Your task to perform on an android device: turn on the 24-hour format for clock Image 0: 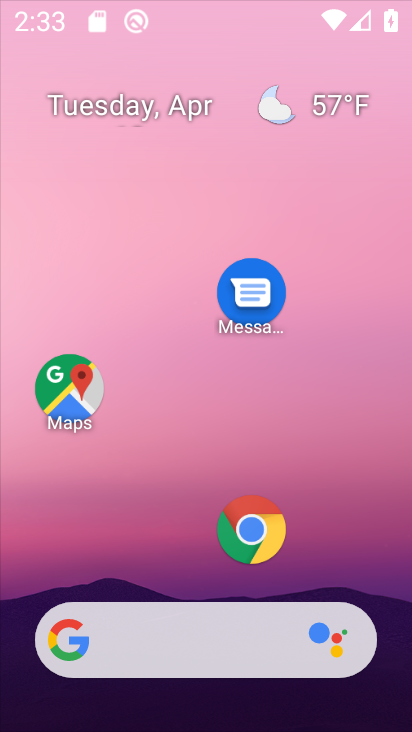
Step 0: drag from (186, 556) to (408, 182)
Your task to perform on an android device: turn on the 24-hour format for clock Image 1: 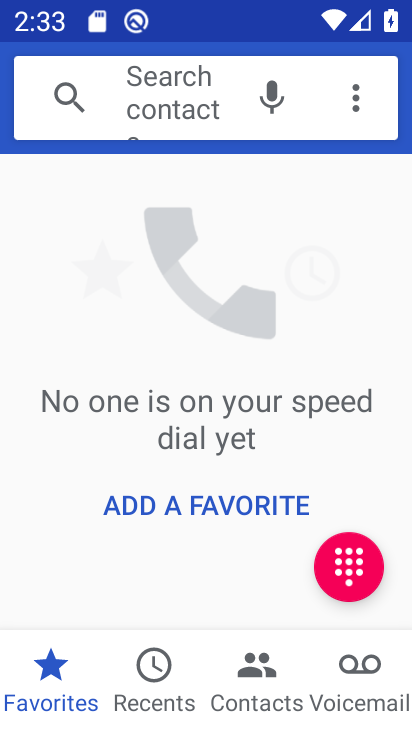
Step 1: press home button
Your task to perform on an android device: turn on the 24-hour format for clock Image 2: 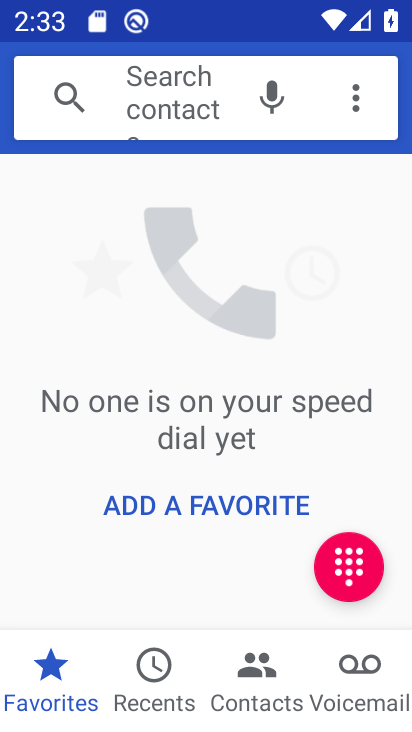
Step 2: drag from (408, 182) to (407, 509)
Your task to perform on an android device: turn on the 24-hour format for clock Image 3: 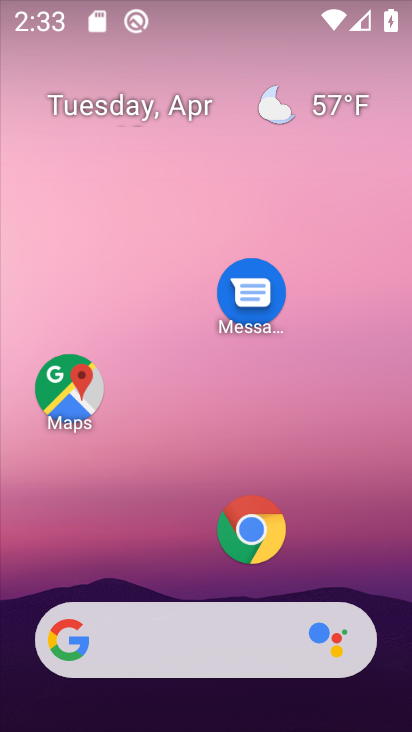
Step 3: drag from (164, 550) to (180, 223)
Your task to perform on an android device: turn on the 24-hour format for clock Image 4: 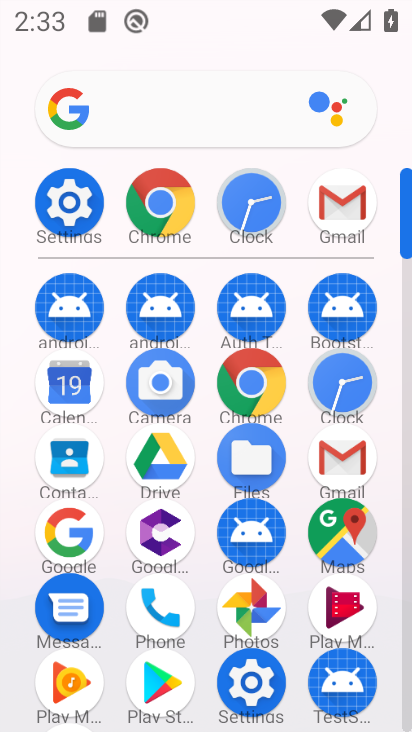
Step 4: click (341, 387)
Your task to perform on an android device: turn on the 24-hour format for clock Image 5: 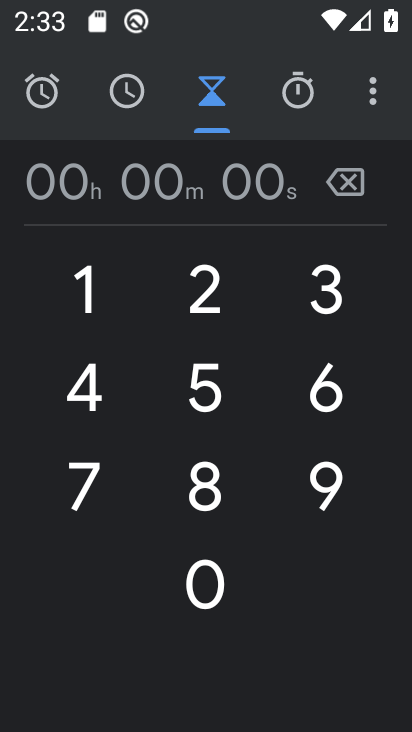
Step 5: click (364, 101)
Your task to perform on an android device: turn on the 24-hour format for clock Image 6: 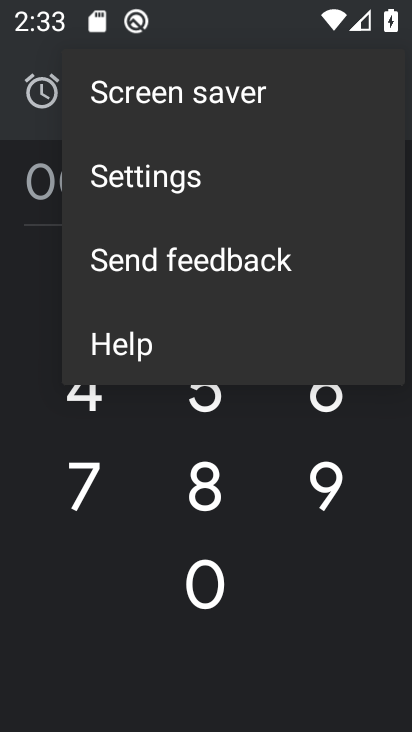
Step 6: click (180, 186)
Your task to perform on an android device: turn on the 24-hour format for clock Image 7: 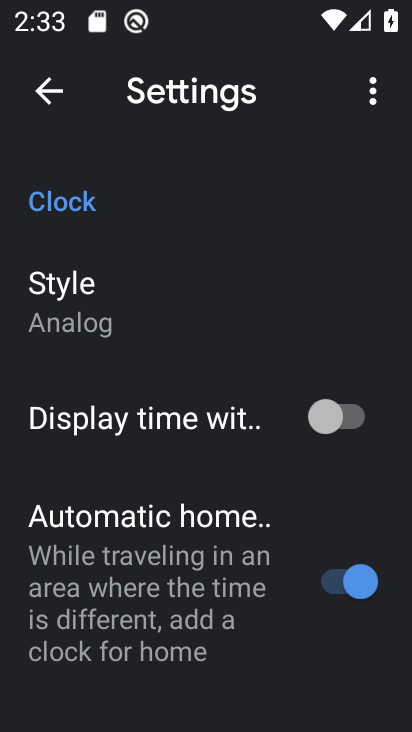
Step 7: drag from (209, 479) to (245, 160)
Your task to perform on an android device: turn on the 24-hour format for clock Image 8: 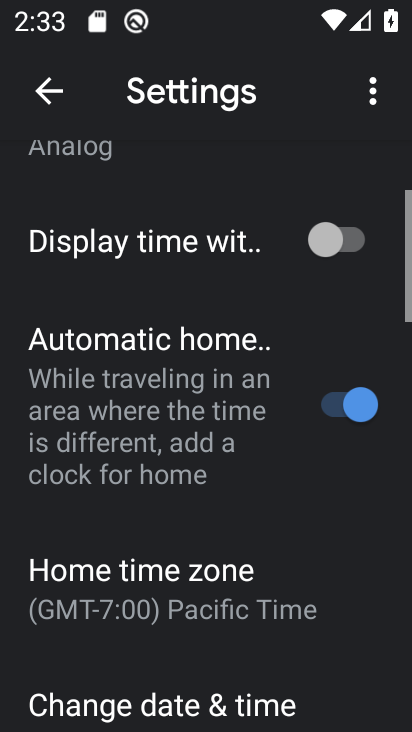
Step 8: drag from (236, 537) to (209, 263)
Your task to perform on an android device: turn on the 24-hour format for clock Image 9: 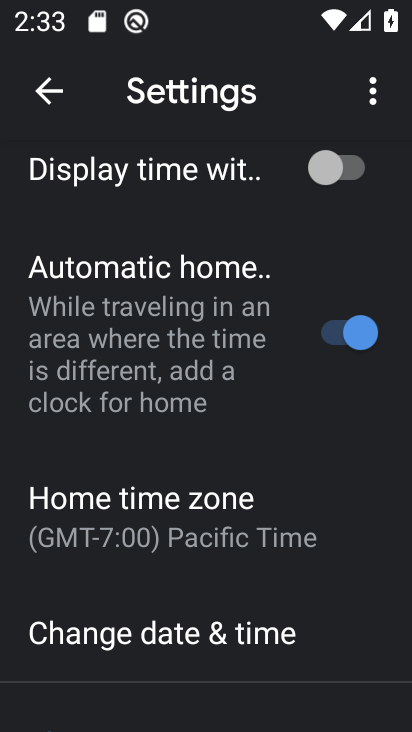
Step 9: click (153, 625)
Your task to perform on an android device: turn on the 24-hour format for clock Image 10: 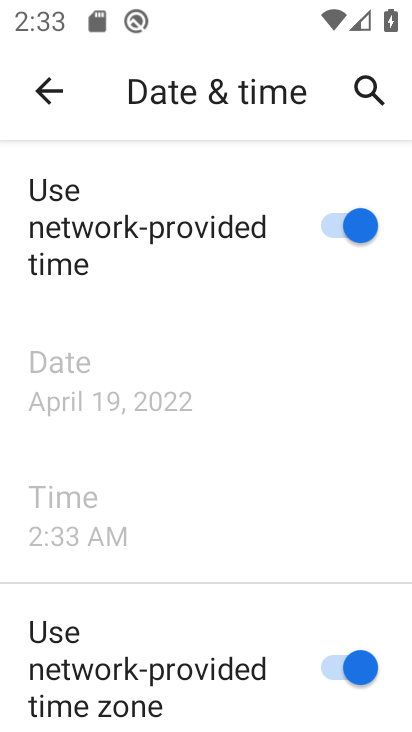
Step 10: drag from (207, 579) to (245, 190)
Your task to perform on an android device: turn on the 24-hour format for clock Image 11: 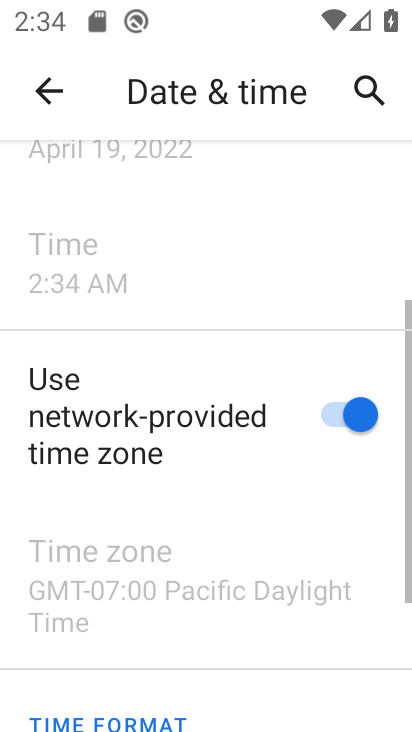
Step 11: drag from (274, 626) to (298, 249)
Your task to perform on an android device: turn on the 24-hour format for clock Image 12: 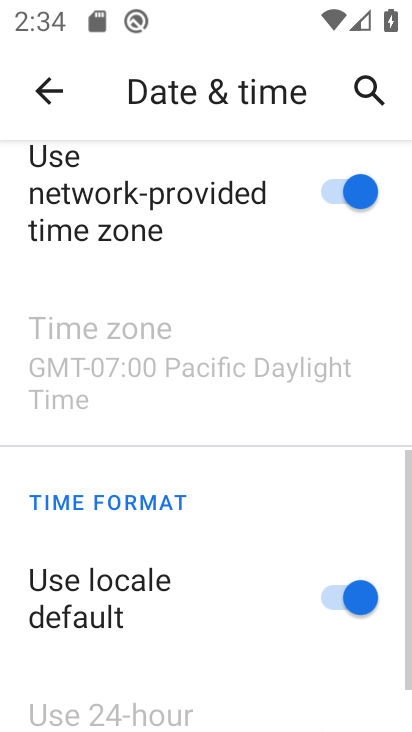
Step 12: drag from (187, 618) to (216, 378)
Your task to perform on an android device: turn on the 24-hour format for clock Image 13: 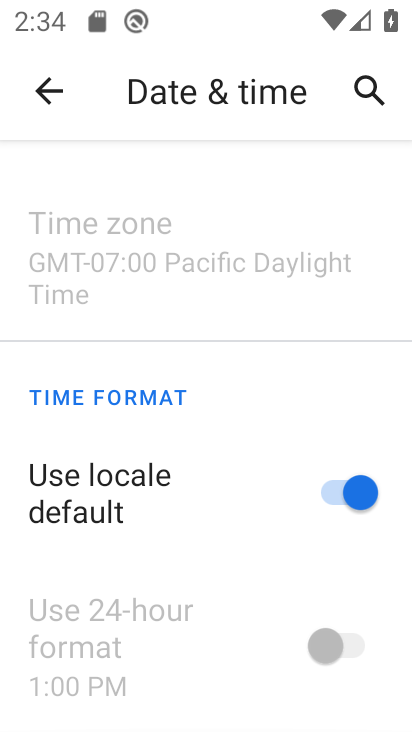
Step 13: click (364, 487)
Your task to perform on an android device: turn on the 24-hour format for clock Image 14: 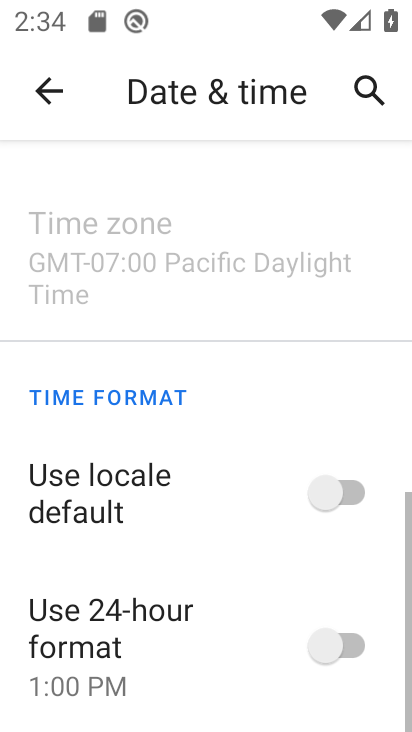
Step 14: click (338, 641)
Your task to perform on an android device: turn on the 24-hour format for clock Image 15: 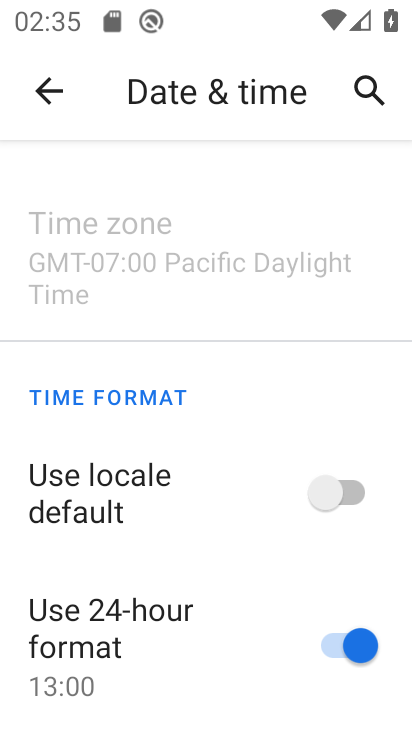
Step 15: task complete